Your task to perform on an android device: add a label to a message in the gmail app Image 0: 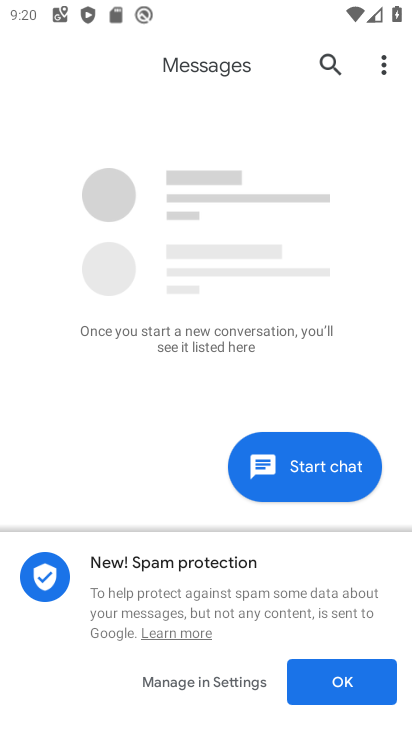
Step 0: press home button
Your task to perform on an android device: add a label to a message in the gmail app Image 1: 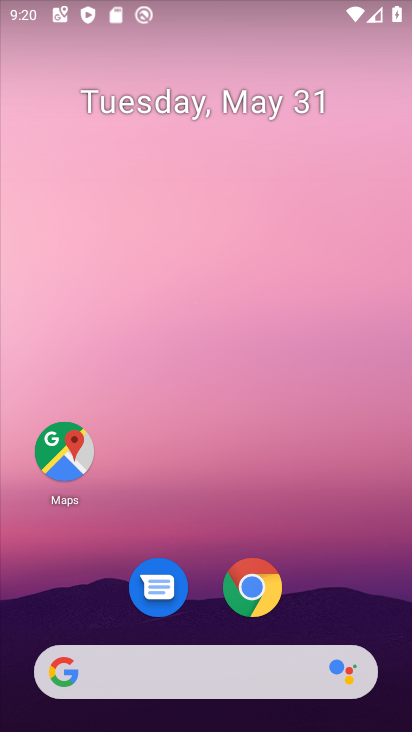
Step 1: drag from (340, 586) to (316, 50)
Your task to perform on an android device: add a label to a message in the gmail app Image 2: 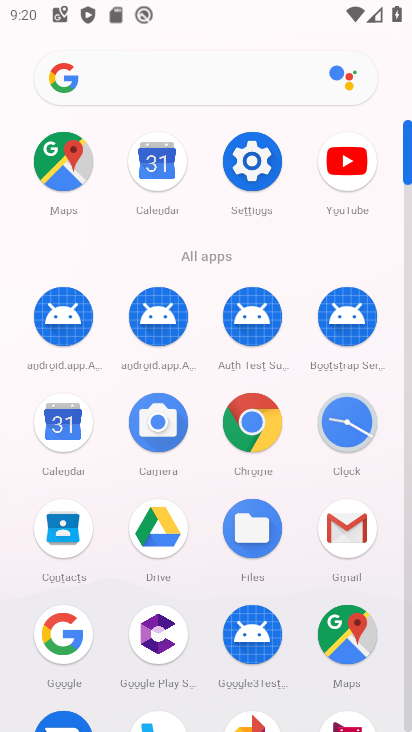
Step 2: click (340, 524)
Your task to perform on an android device: add a label to a message in the gmail app Image 3: 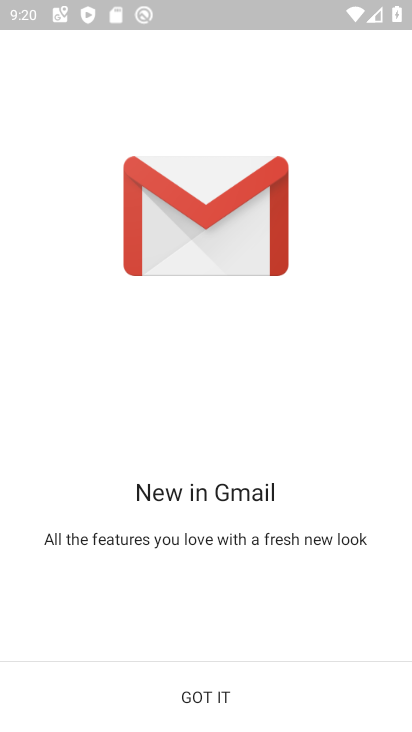
Step 3: click (179, 684)
Your task to perform on an android device: add a label to a message in the gmail app Image 4: 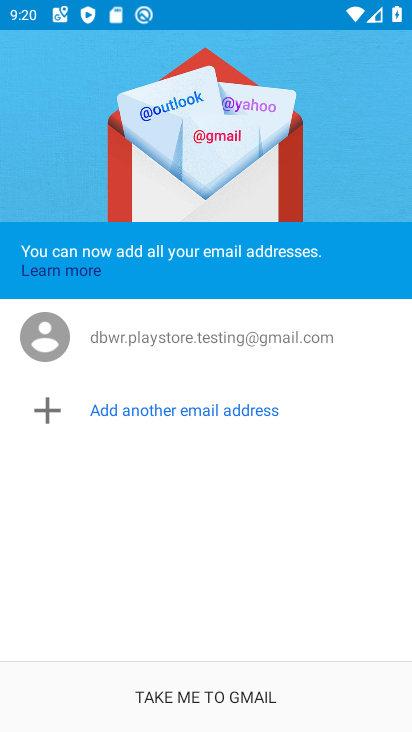
Step 4: click (206, 687)
Your task to perform on an android device: add a label to a message in the gmail app Image 5: 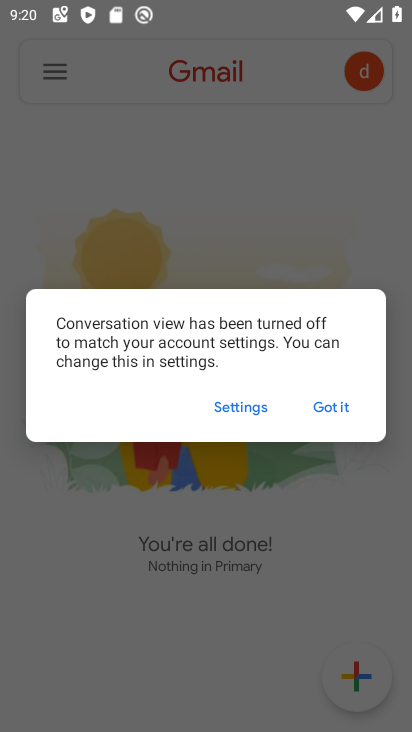
Step 5: click (320, 405)
Your task to perform on an android device: add a label to a message in the gmail app Image 6: 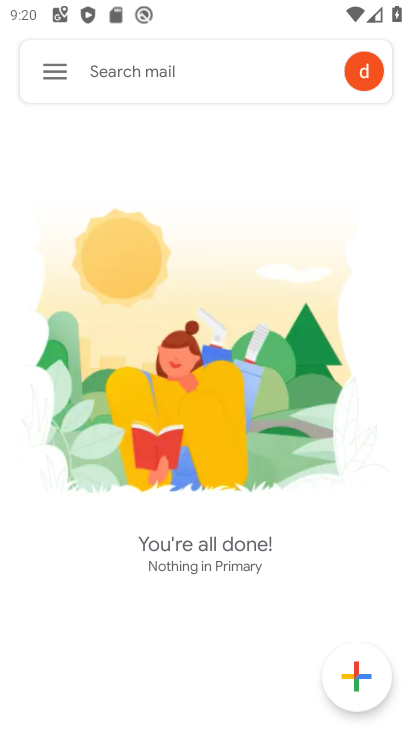
Step 6: task complete